Your task to perform on an android device: search for starred emails in the gmail app Image 0: 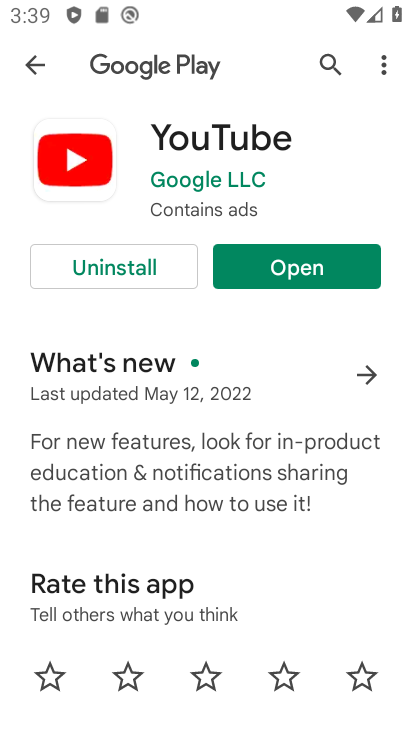
Step 0: press back button
Your task to perform on an android device: search for starred emails in the gmail app Image 1: 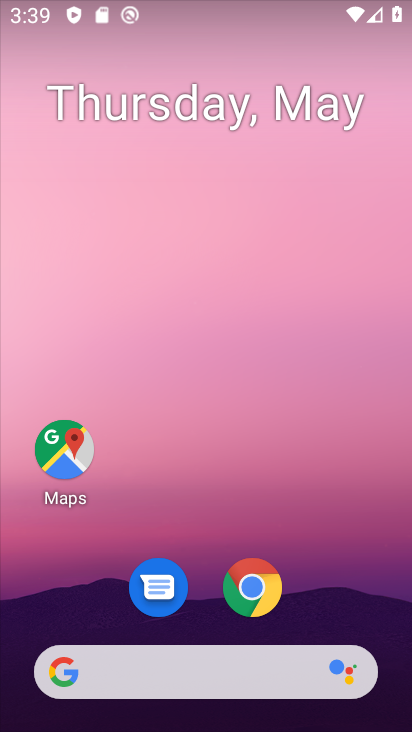
Step 1: drag from (350, 590) to (290, 74)
Your task to perform on an android device: search for starred emails in the gmail app Image 2: 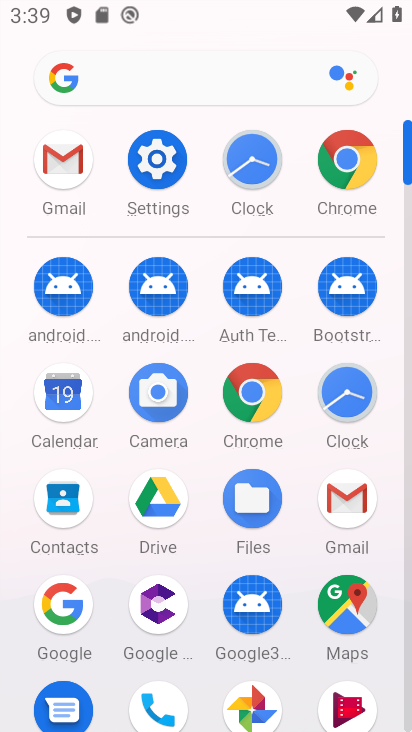
Step 2: click (64, 156)
Your task to perform on an android device: search for starred emails in the gmail app Image 3: 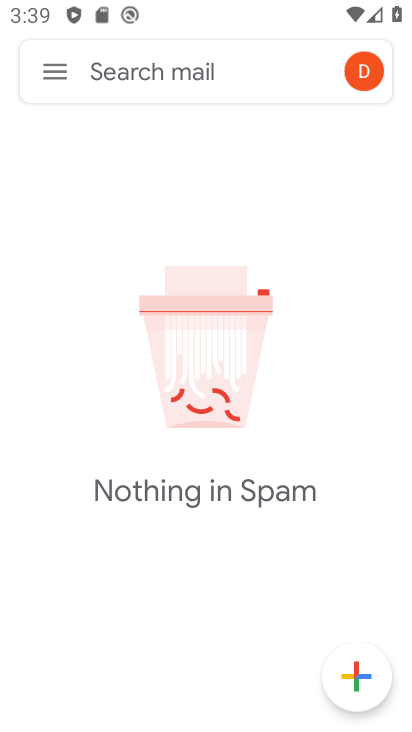
Step 3: click (58, 77)
Your task to perform on an android device: search for starred emails in the gmail app Image 4: 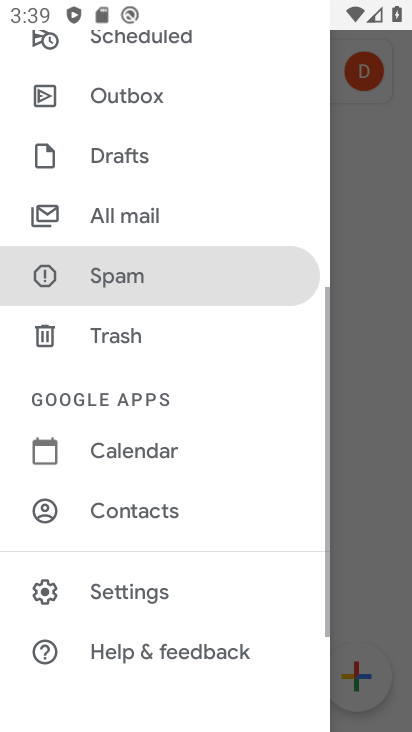
Step 4: drag from (169, 160) to (167, 592)
Your task to perform on an android device: search for starred emails in the gmail app Image 5: 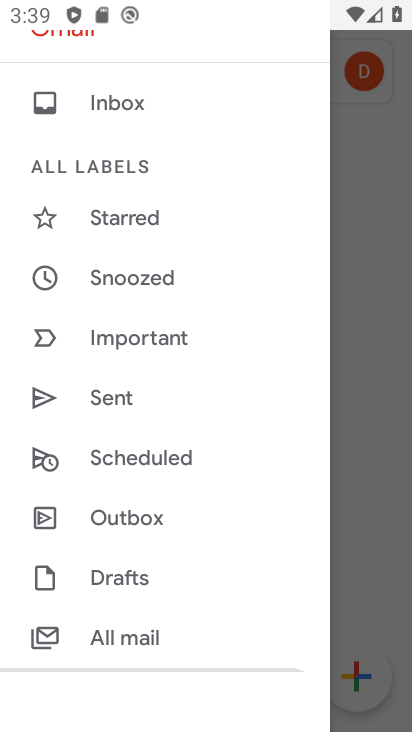
Step 5: drag from (226, 177) to (178, 583)
Your task to perform on an android device: search for starred emails in the gmail app Image 6: 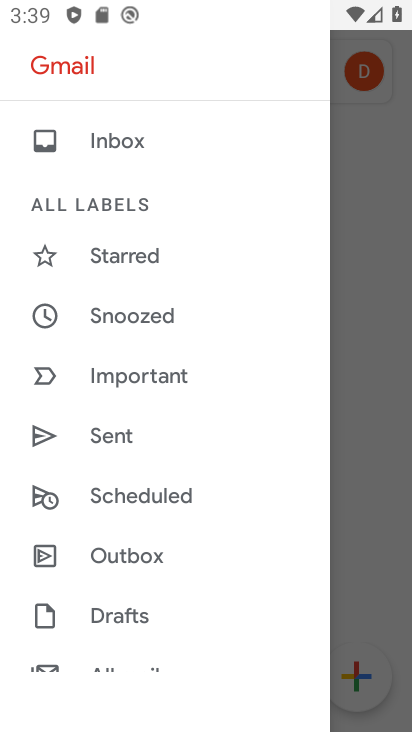
Step 6: click (154, 266)
Your task to perform on an android device: search for starred emails in the gmail app Image 7: 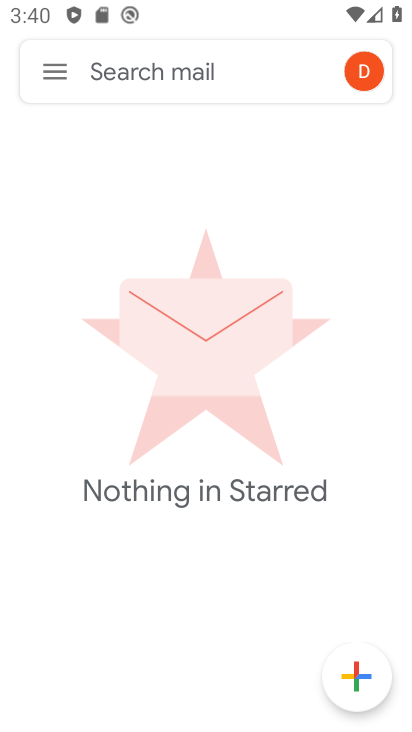
Step 7: task complete